Your task to perform on an android device: When is my next appointment? Image 0: 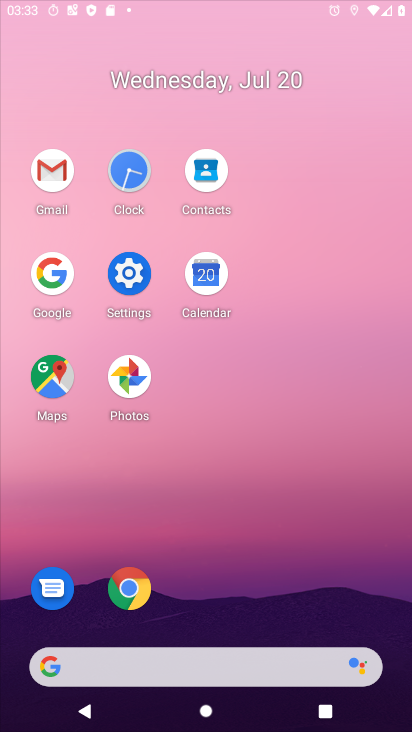
Step 0: press back button
Your task to perform on an android device: When is my next appointment? Image 1: 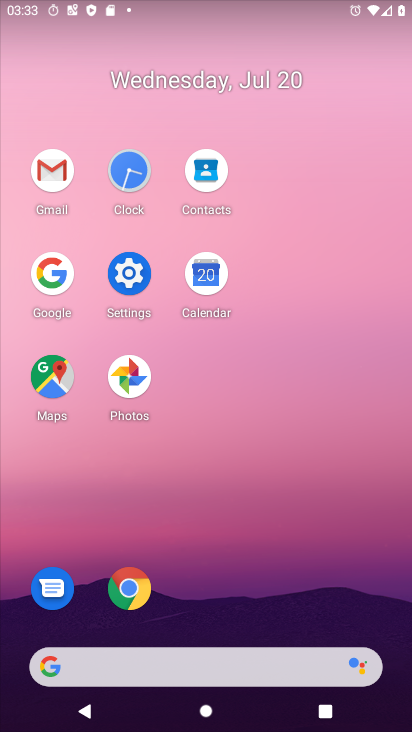
Step 1: click (143, 270)
Your task to perform on an android device: When is my next appointment? Image 2: 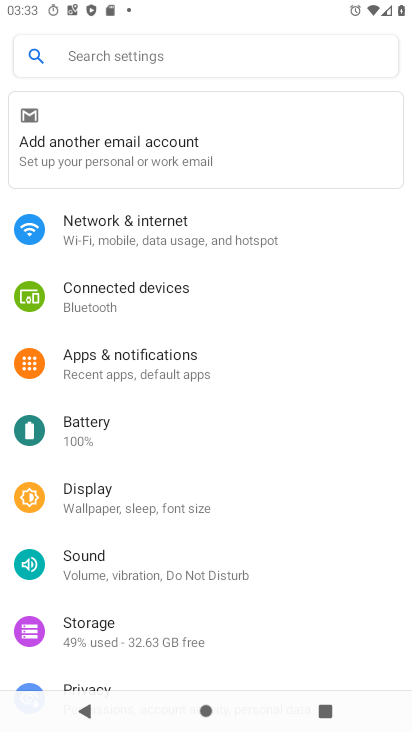
Step 2: click (109, 242)
Your task to perform on an android device: When is my next appointment? Image 3: 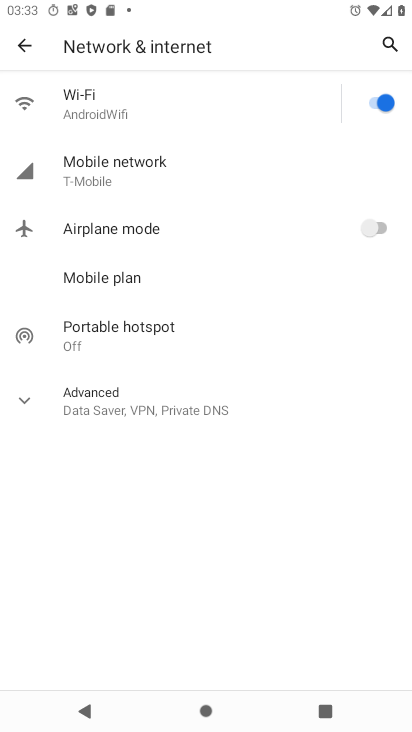
Step 3: task complete